Your task to perform on an android device: change notifications settings Image 0: 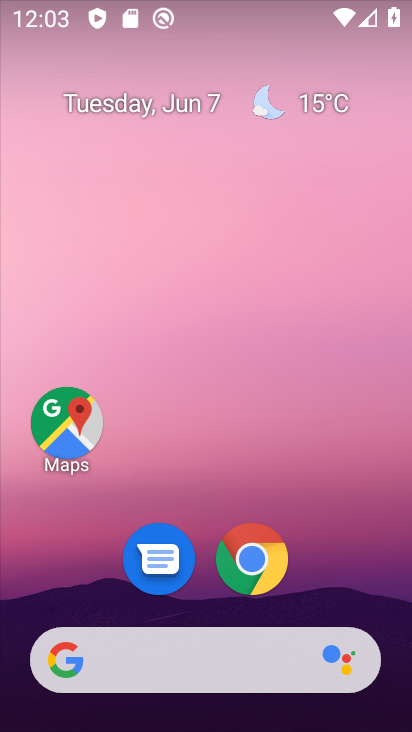
Step 0: drag from (345, 578) to (259, 20)
Your task to perform on an android device: change notifications settings Image 1: 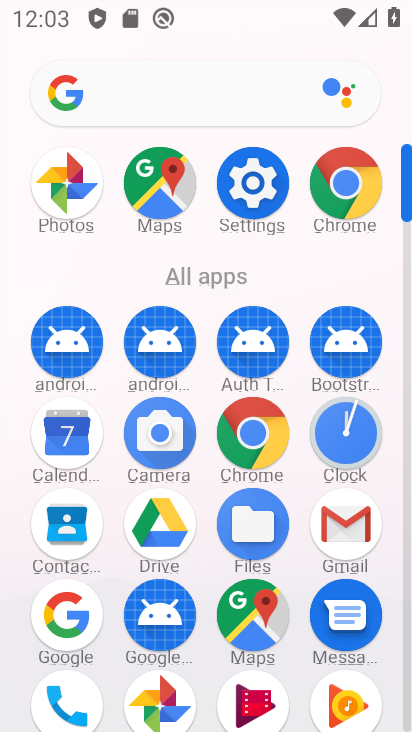
Step 1: click (275, 177)
Your task to perform on an android device: change notifications settings Image 2: 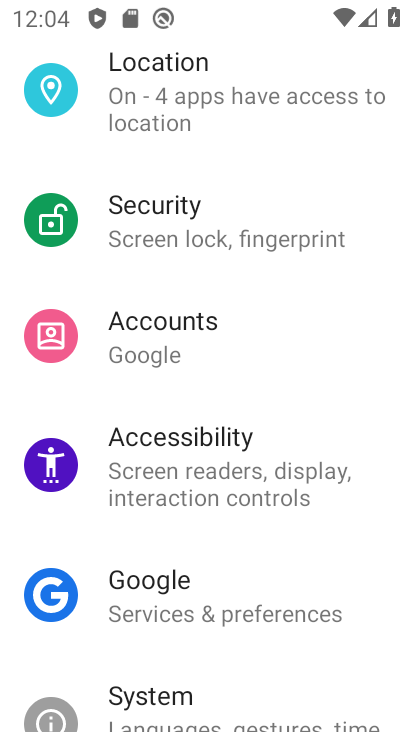
Step 2: drag from (207, 135) to (214, 727)
Your task to perform on an android device: change notifications settings Image 3: 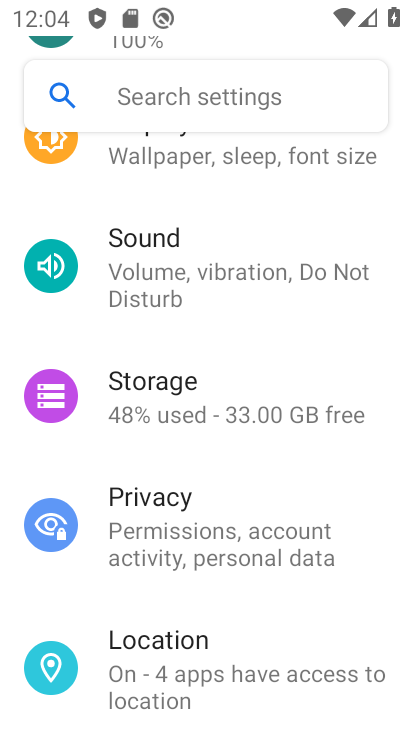
Step 3: drag from (193, 204) to (202, 689)
Your task to perform on an android device: change notifications settings Image 4: 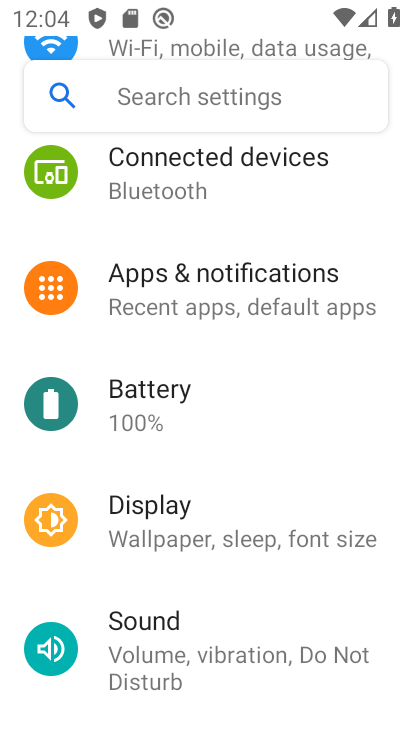
Step 4: click (199, 279)
Your task to perform on an android device: change notifications settings Image 5: 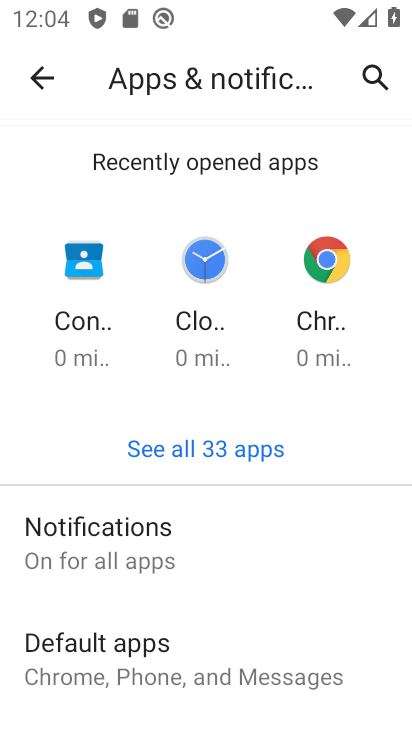
Step 5: drag from (219, 659) to (184, 222)
Your task to perform on an android device: change notifications settings Image 6: 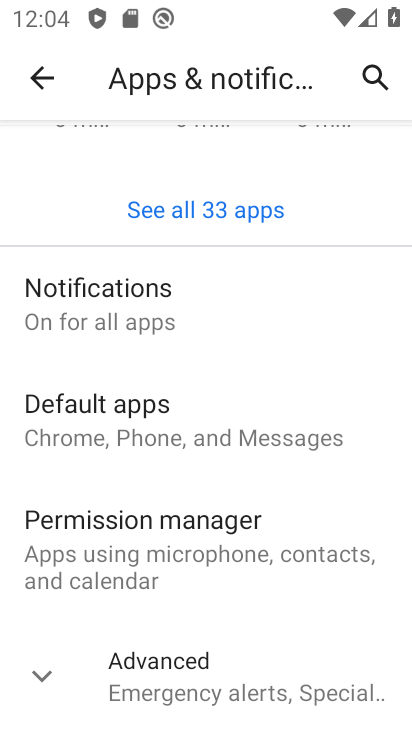
Step 6: click (177, 310)
Your task to perform on an android device: change notifications settings Image 7: 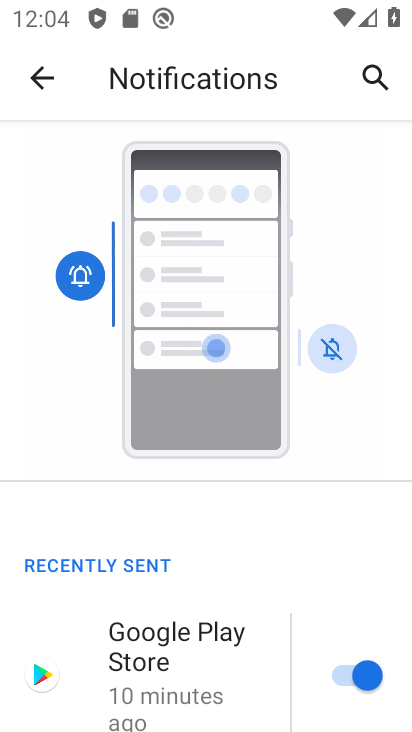
Step 7: drag from (176, 711) to (229, 92)
Your task to perform on an android device: change notifications settings Image 8: 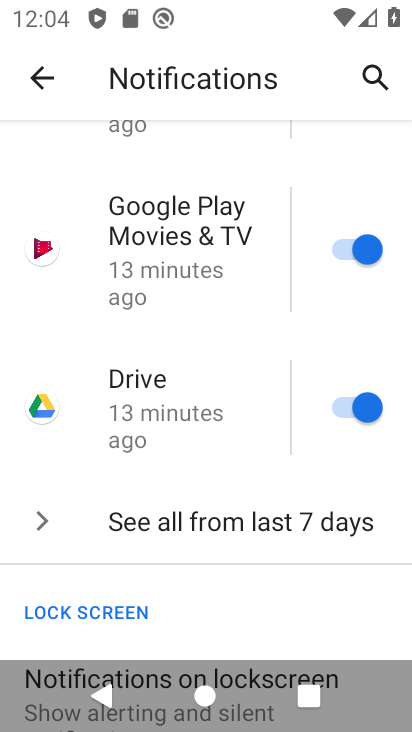
Step 8: drag from (199, 625) to (273, 118)
Your task to perform on an android device: change notifications settings Image 9: 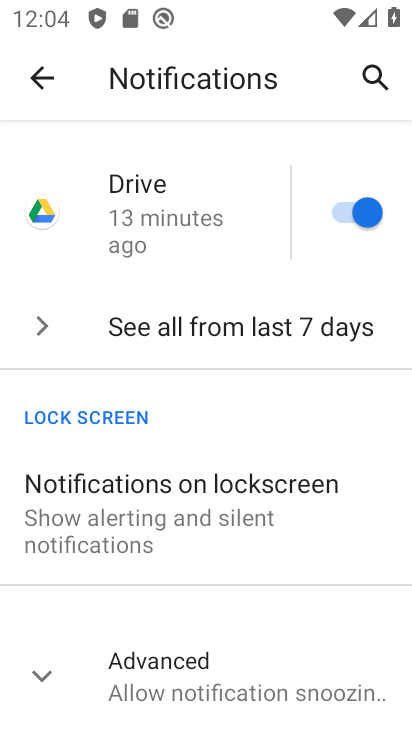
Step 9: click (234, 669)
Your task to perform on an android device: change notifications settings Image 10: 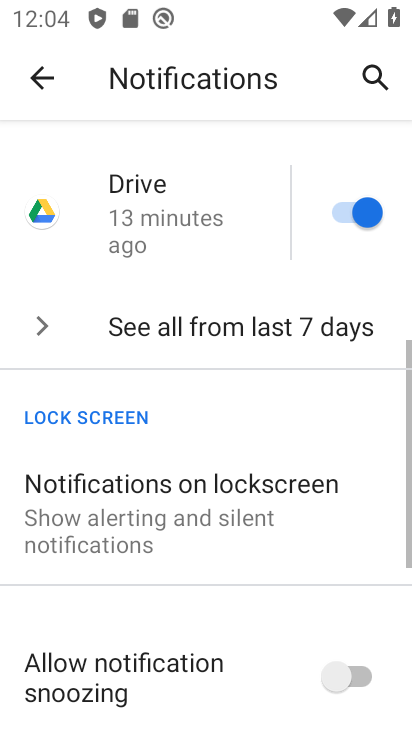
Step 10: drag from (222, 653) to (202, 48)
Your task to perform on an android device: change notifications settings Image 11: 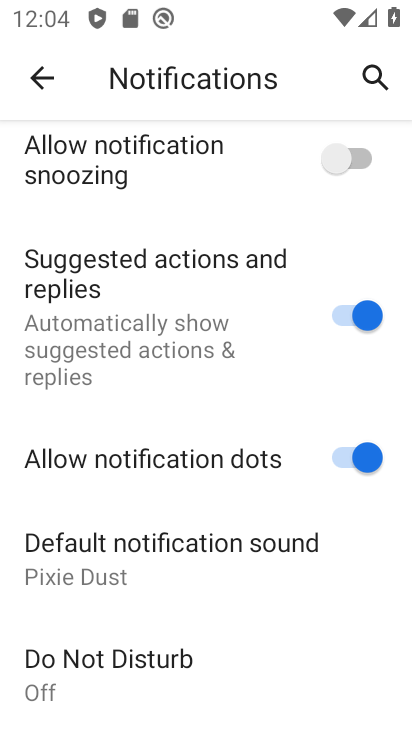
Step 11: drag from (159, 558) to (115, 163)
Your task to perform on an android device: change notifications settings Image 12: 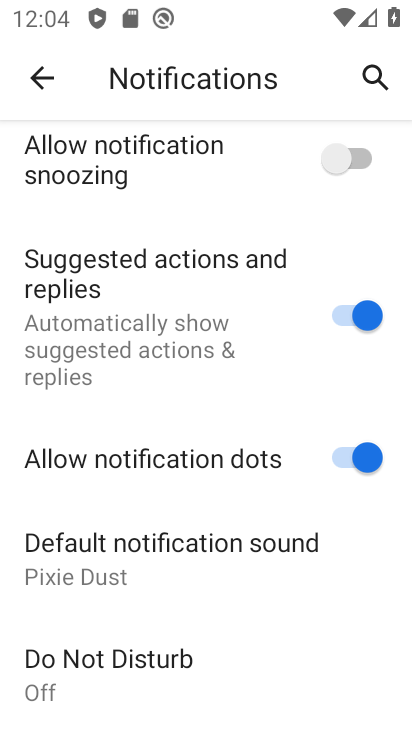
Step 12: click (366, 315)
Your task to perform on an android device: change notifications settings Image 13: 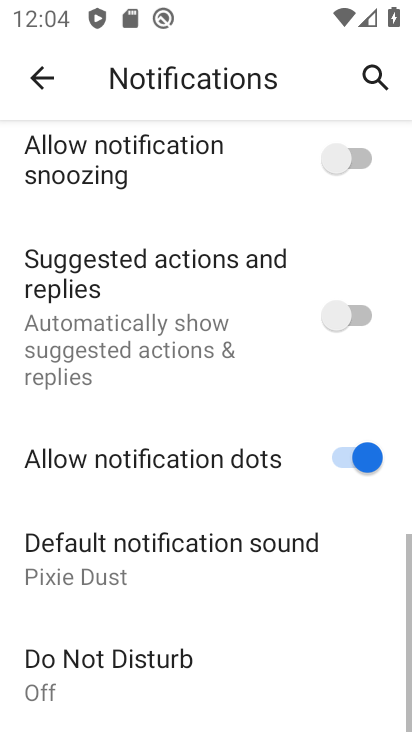
Step 13: click (371, 459)
Your task to perform on an android device: change notifications settings Image 14: 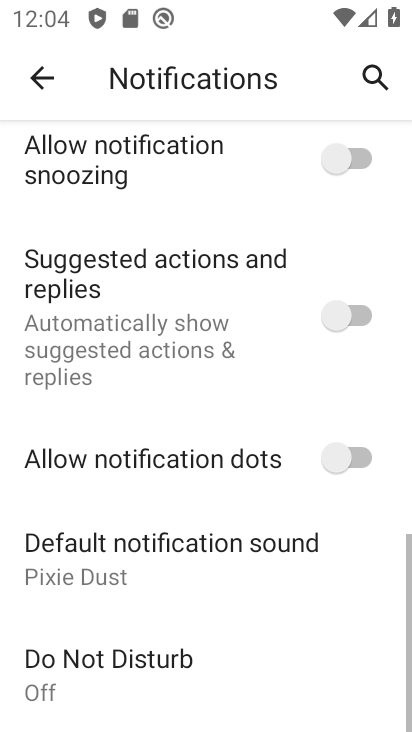
Step 14: task complete